Your task to perform on an android device: remove spam from my inbox in the gmail app Image 0: 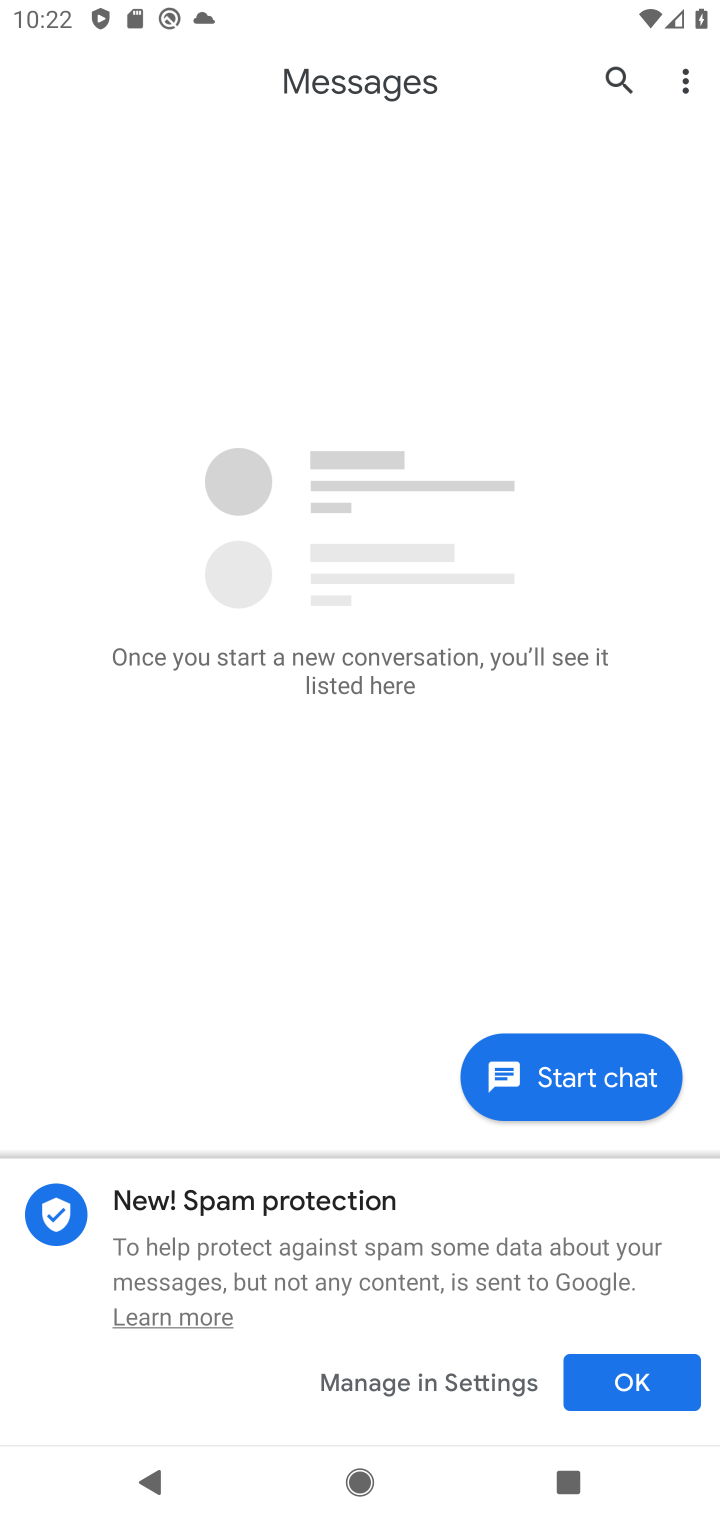
Step 0: press back button
Your task to perform on an android device: remove spam from my inbox in the gmail app Image 1: 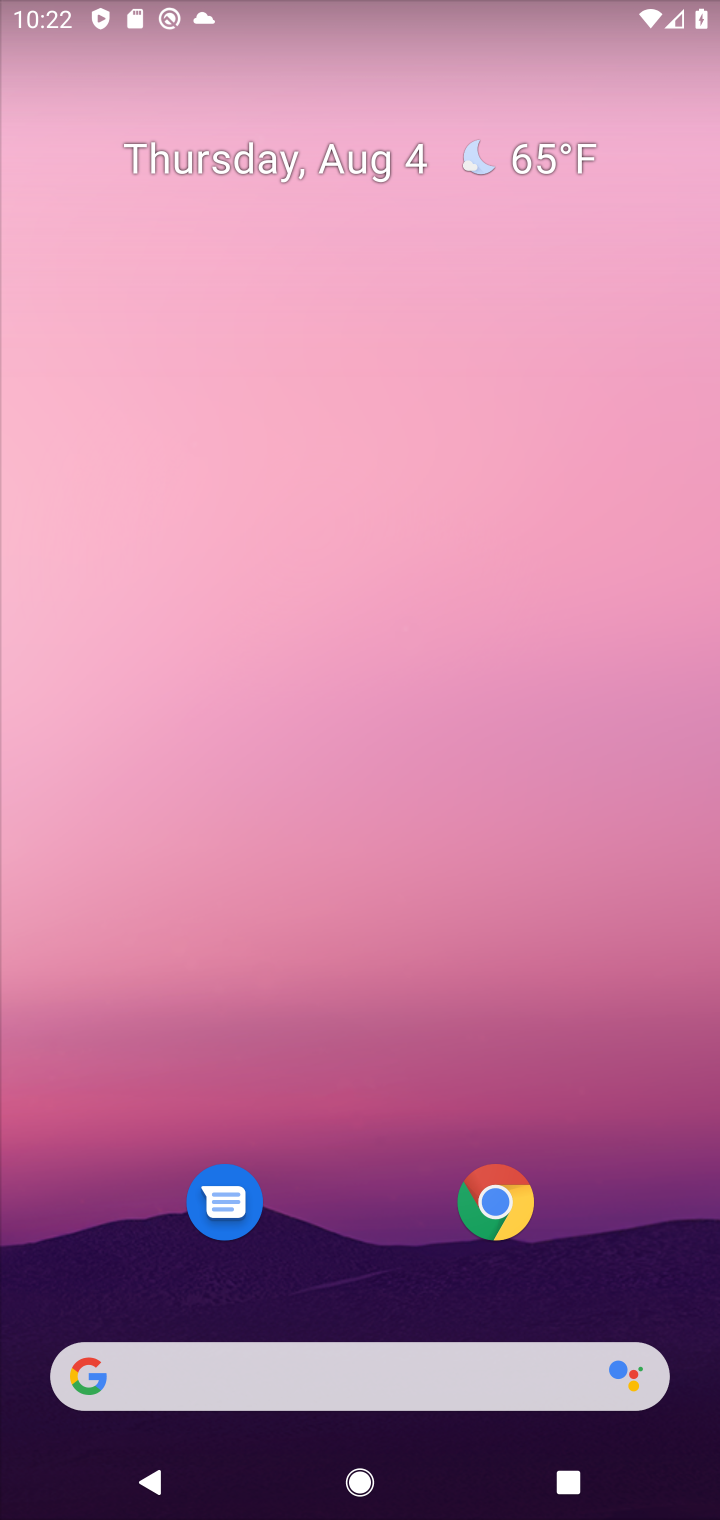
Step 1: drag from (365, 1230) to (457, 82)
Your task to perform on an android device: remove spam from my inbox in the gmail app Image 2: 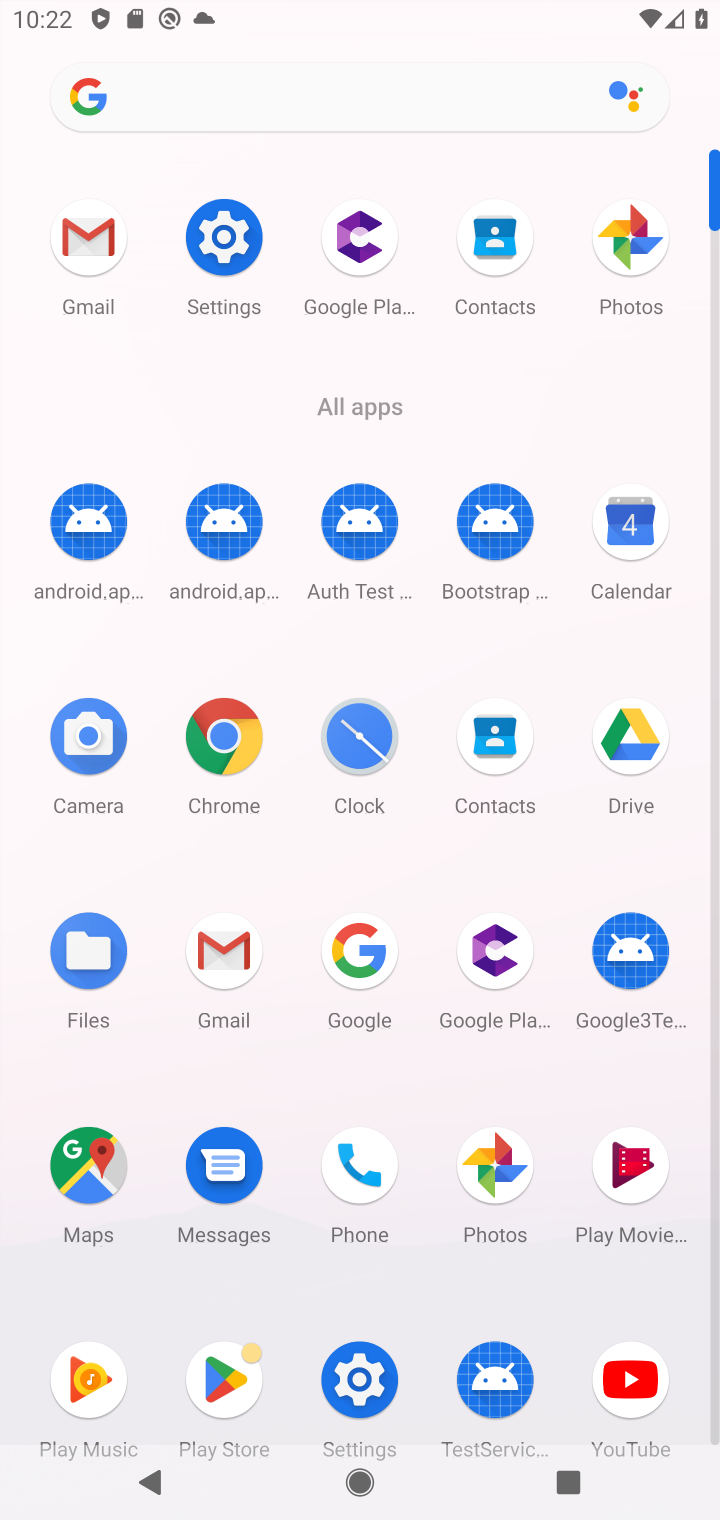
Step 2: click (107, 266)
Your task to perform on an android device: remove spam from my inbox in the gmail app Image 3: 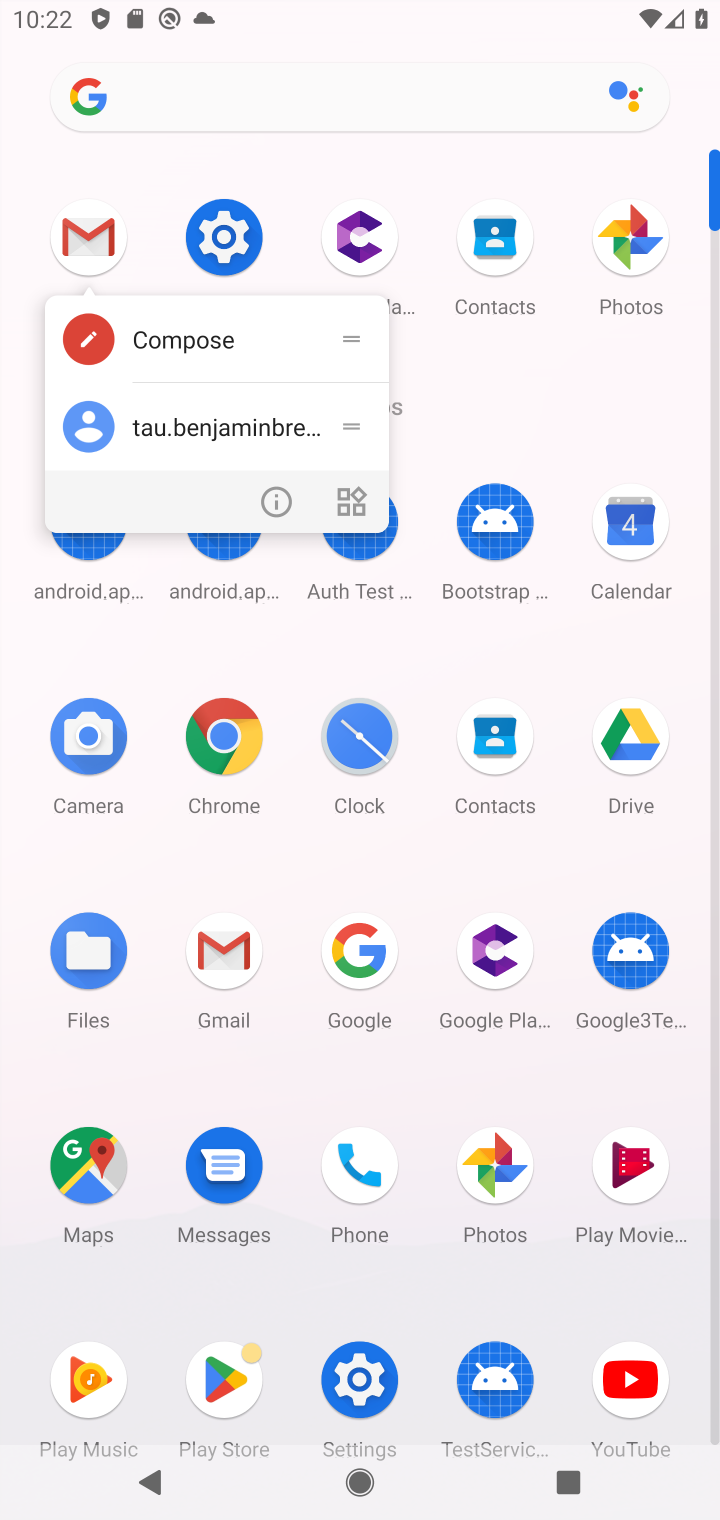
Step 3: click (99, 242)
Your task to perform on an android device: remove spam from my inbox in the gmail app Image 4: 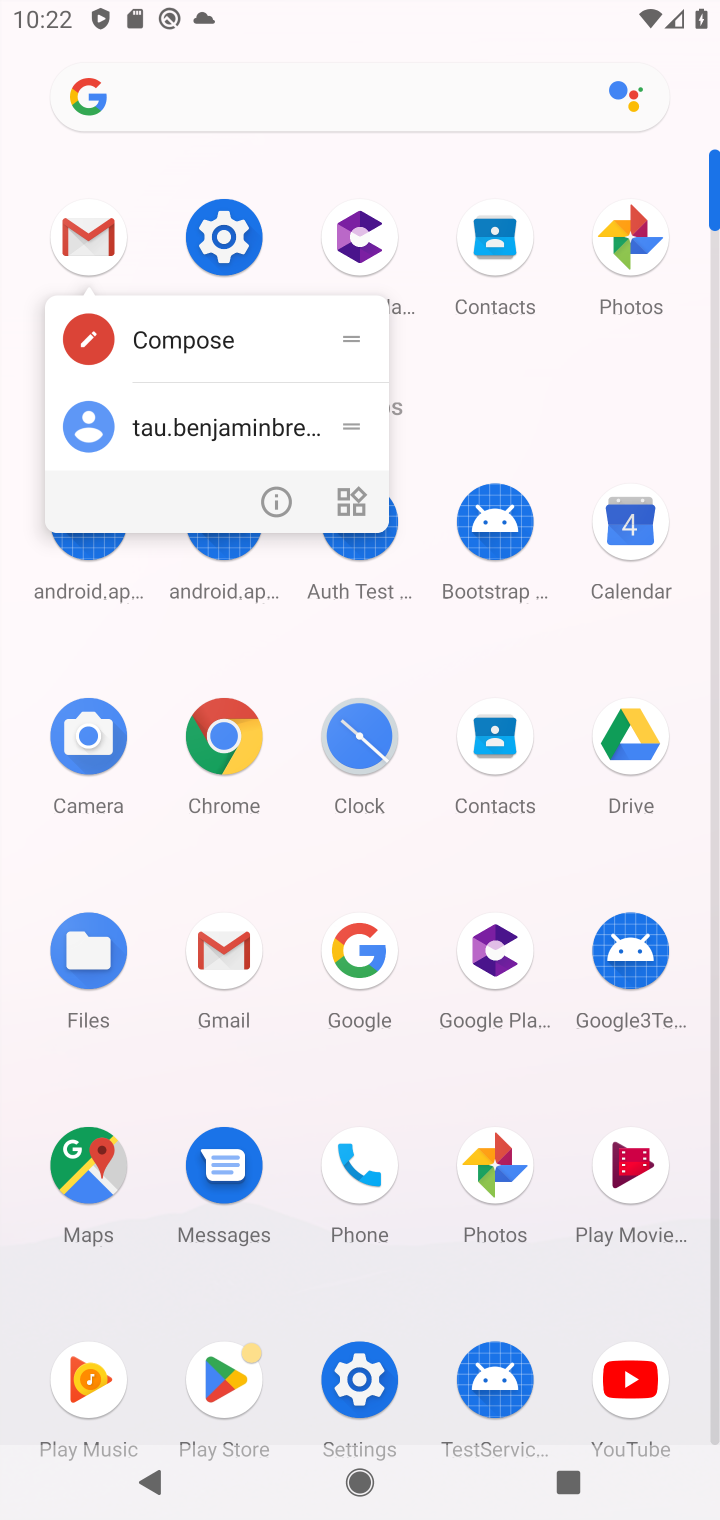
Step 4: click (99, 242)
Your task to perform on an android device: remove spam from my inbox in the gmail app Image 5: 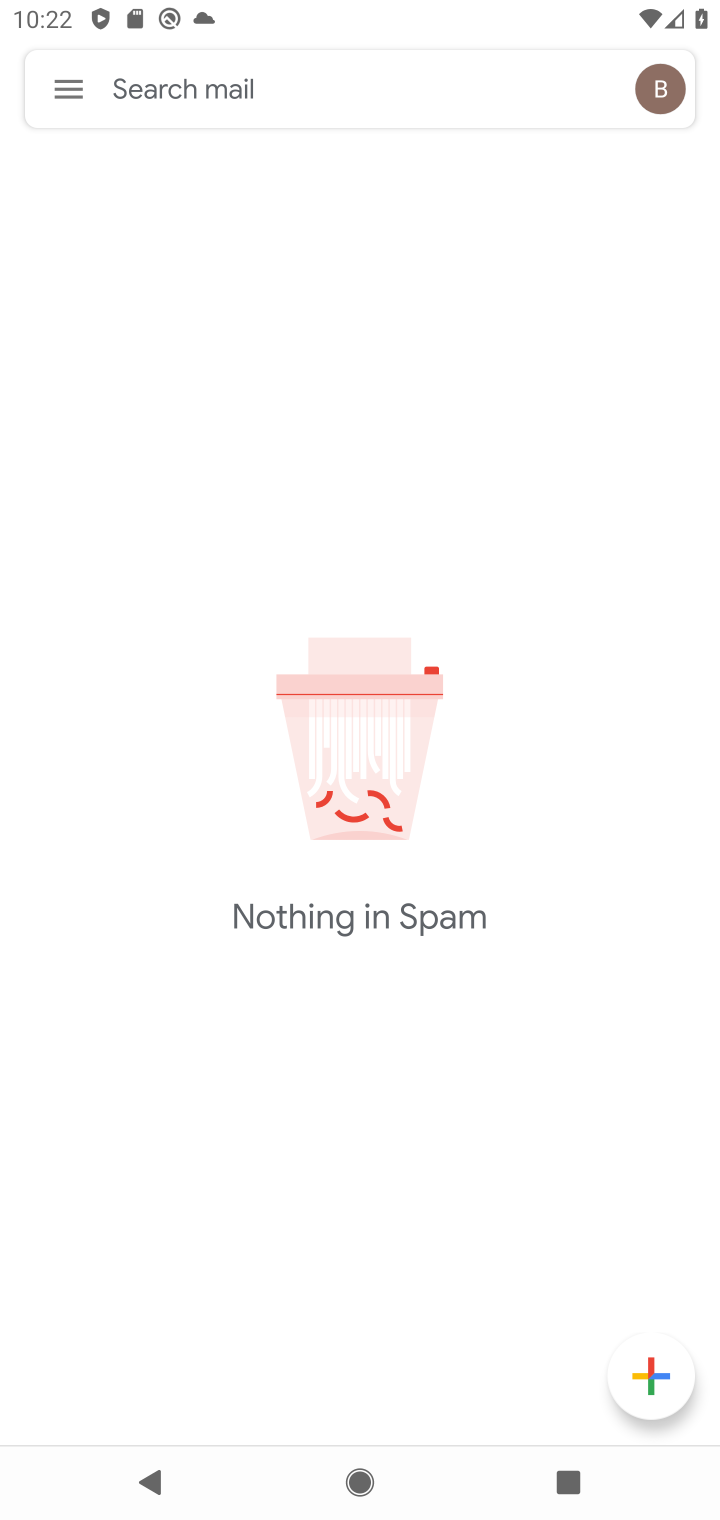
Step 5: click (65, 85)
Your task to perform on an android device: remove spam from my inbox in the gmail app Image 6: 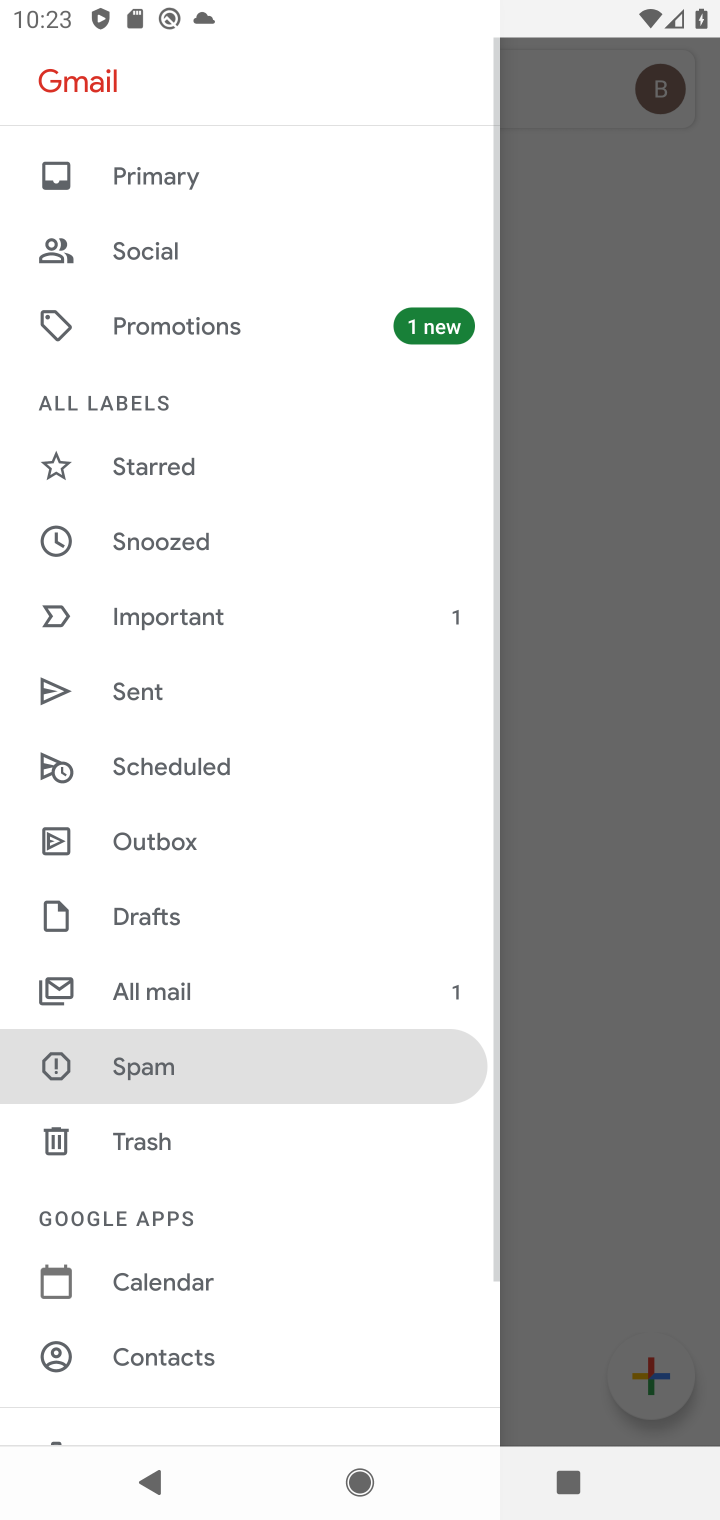
Step 6: click (148, 1068)
Your task to perform on an android device: remove spam from my inbox in the gmail app Image 7: 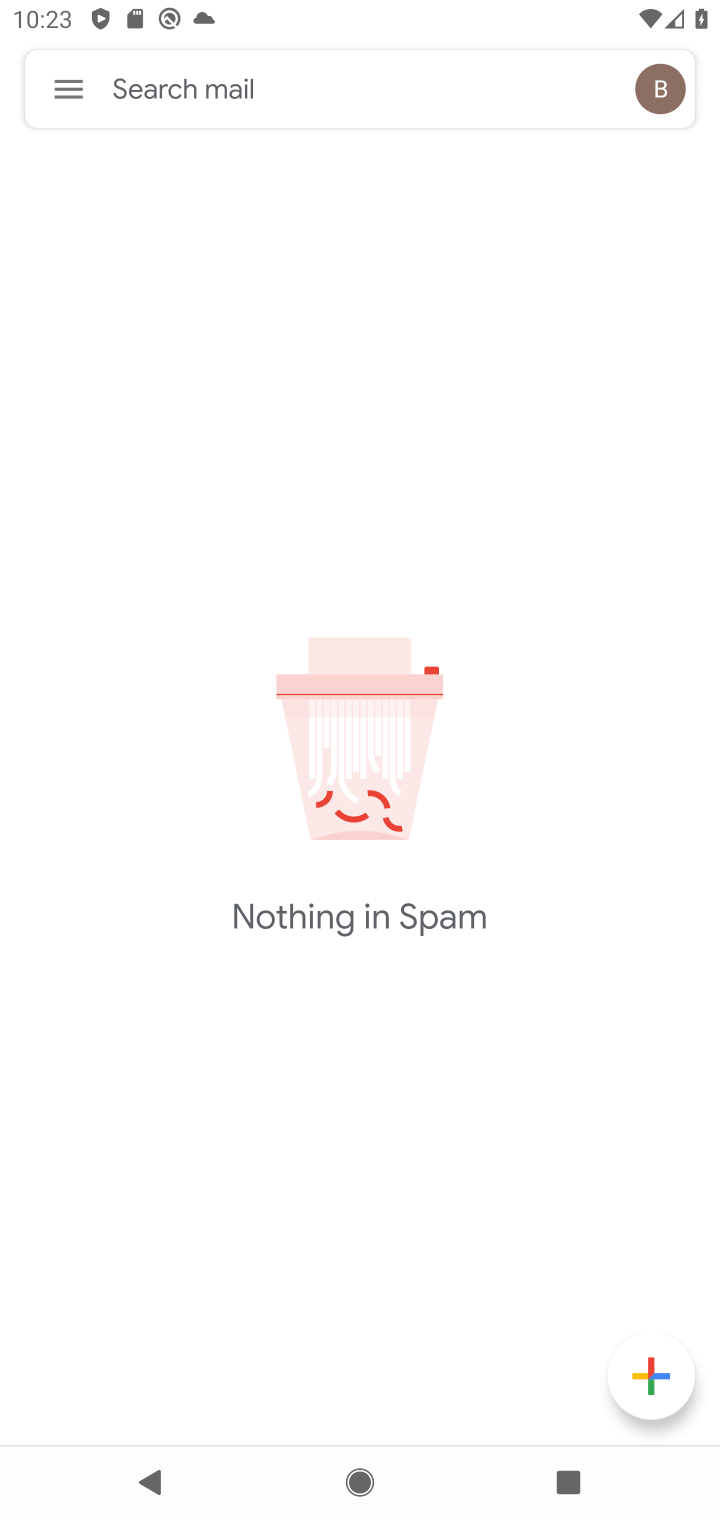
Step 7: task complete